Your task to perform on an android device: set an alarm Image 0: 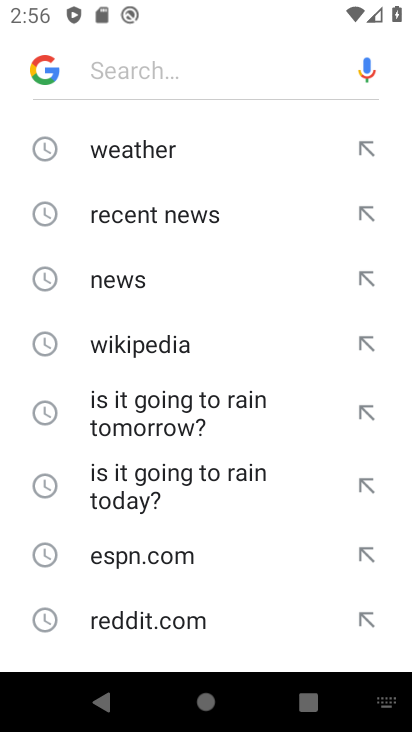
Step 0: press home button
Your task to perform on an android device: set an alarm Image 1: 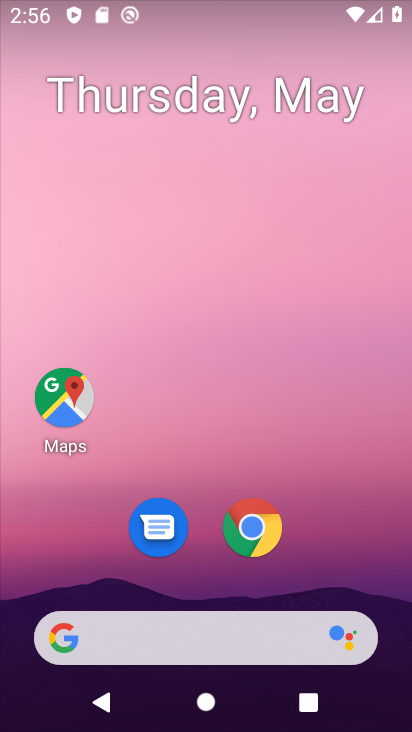
Step 1: drag from (63, 610) to (194, 142)
Your task to perform on an android device: set an alarm Image 2: 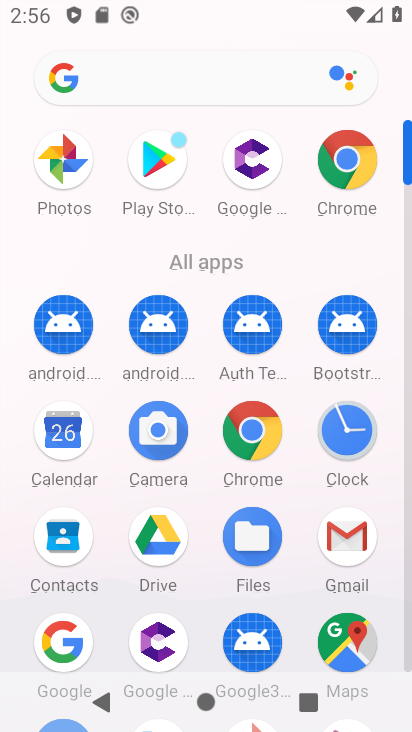
Step 2: click (365, 424)
Your task to perform on an android device: set an alarm Image 3: 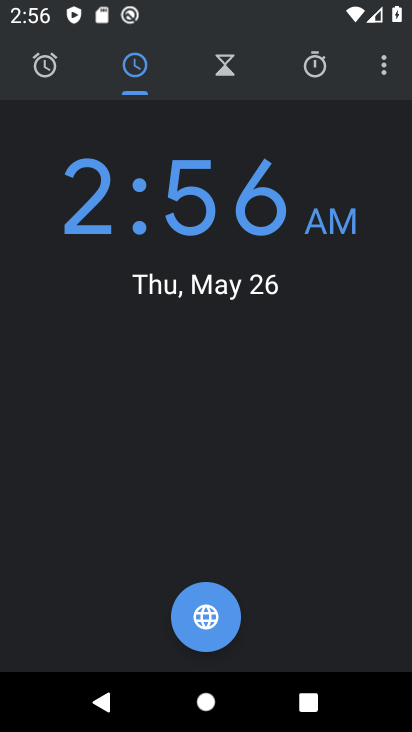
Step 3: click (51, 71)
Your task to perform on an android device: set an alarm Image 4: 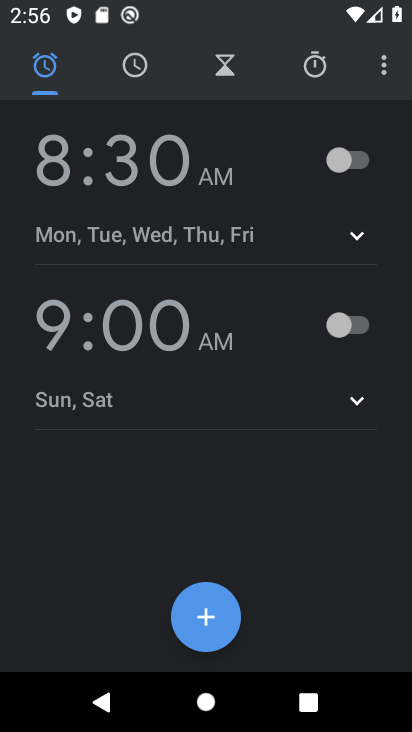
Step 4: click (378, 169)
Your task to perform on an android device: set an alarm Image 5: 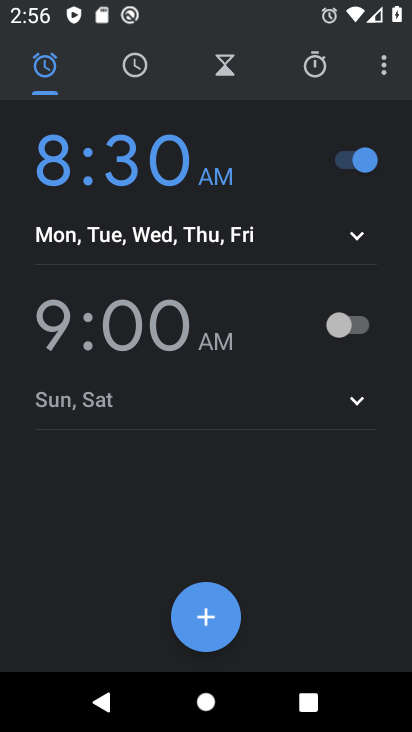
Step 5: task complete